Your task to perform on an android device: Open display settings Image 0: 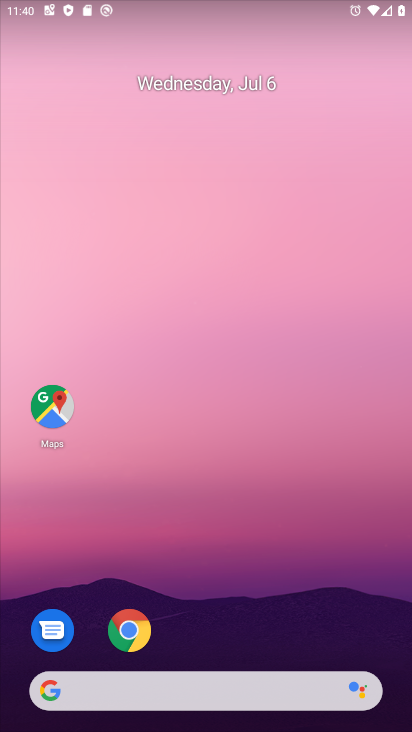
Step 0: drag from (243, 623) to (145, 113)
Your task to perform on an android device: Open display settings Image 1: 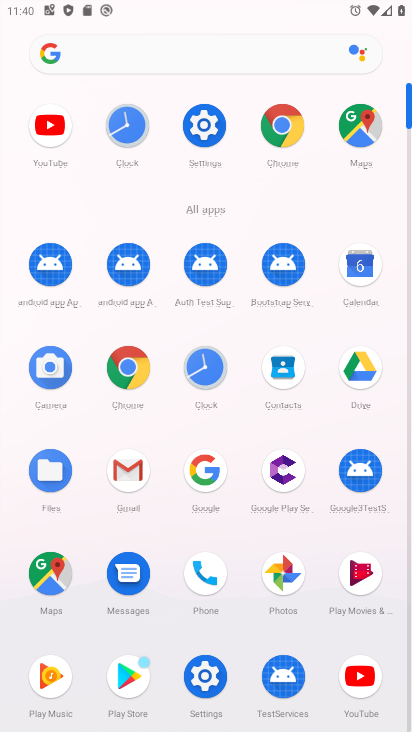
Step 1: click (208, 126)
Your task to perform on an android device: Open display settings Image 2: 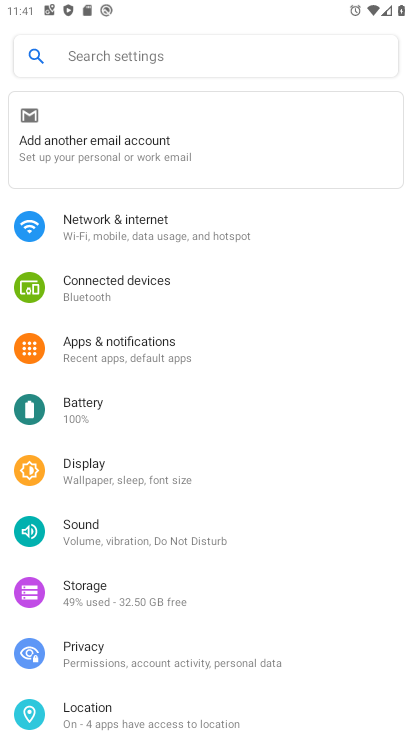
Step 2: click (130, 456)
Your task to perform on an android device: Open display settings Image 3: 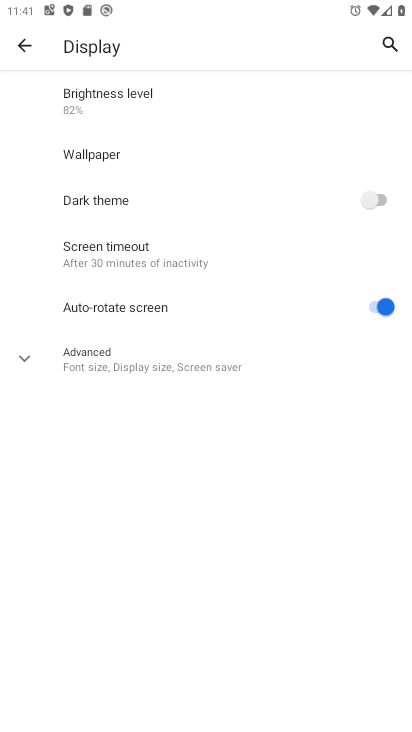
Step 3: task complete